Your task to perform on an android device: Is it going to rain tomorrow? Image 0: 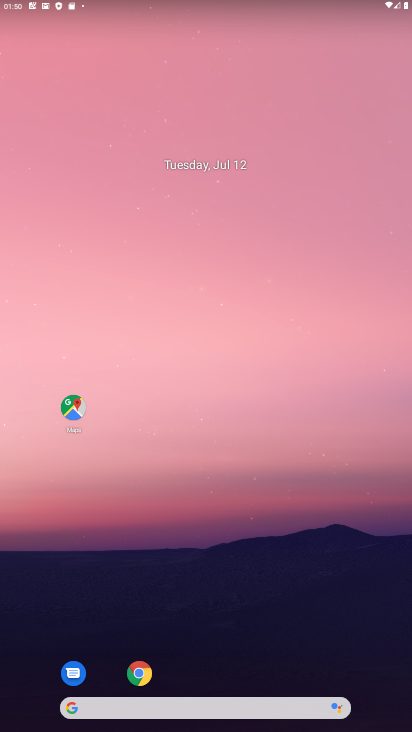
Step 0: click (245, 22)
Your task to perform on an android device: Is it going to rain tomorrow? Image 1: 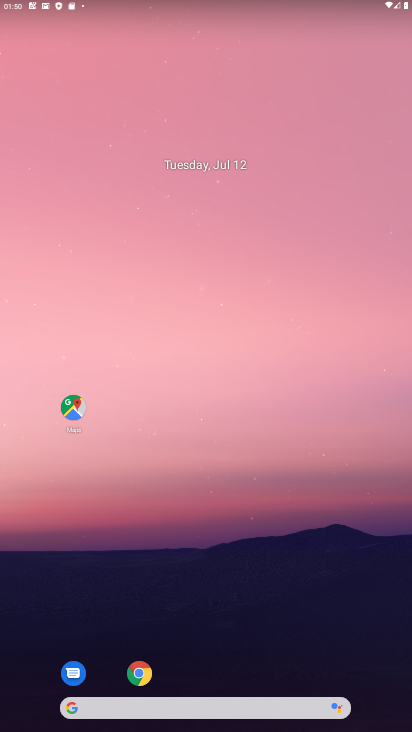
Step 1: click (159, 700)
Your task to perform on an android device: Is it going to rain tomorrow? Image 2: 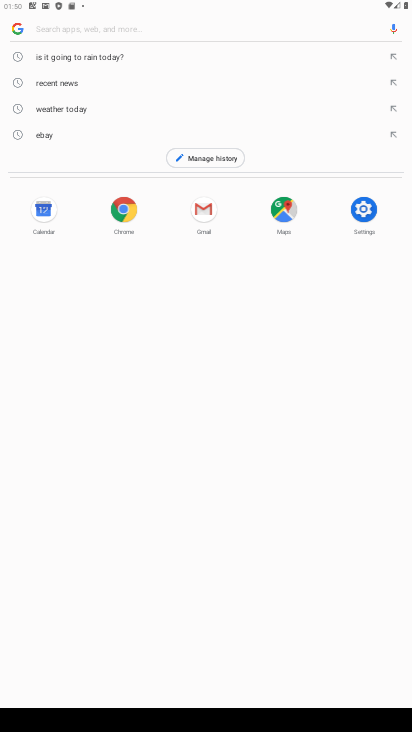
Step 2: type "Is it going to rain tomorrow?"
Your task to perform on an android device: Is it going to rain tomorrow? Image 3: 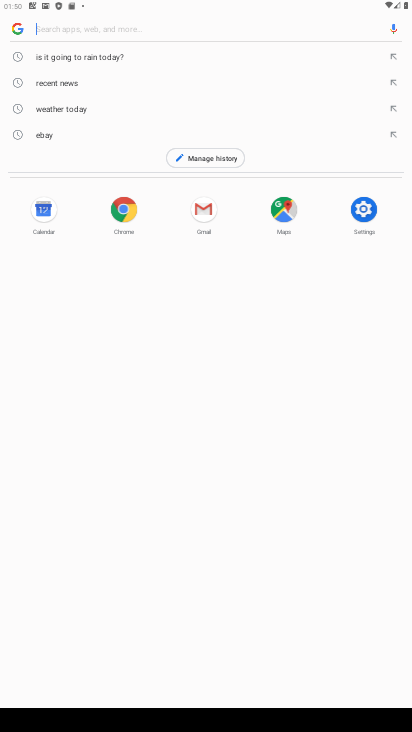
Step 3: click (72, 25)
Your task to perform on an android device: Is it going to rain tomorrow? Image 4: 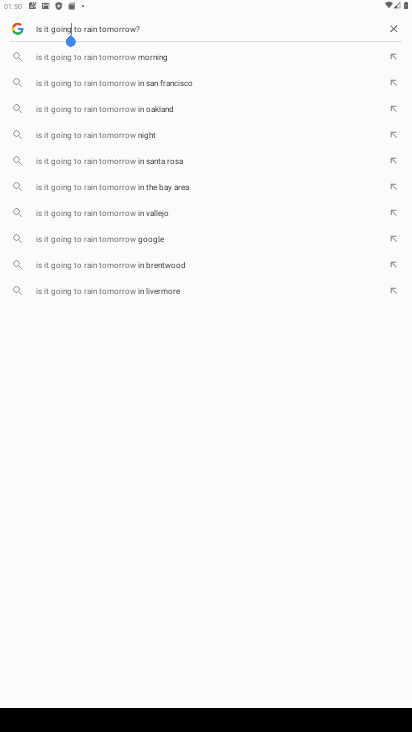
Step 4: press enter
Your task to perform on an android device: Is it going to rain tomorrow? Image 5: 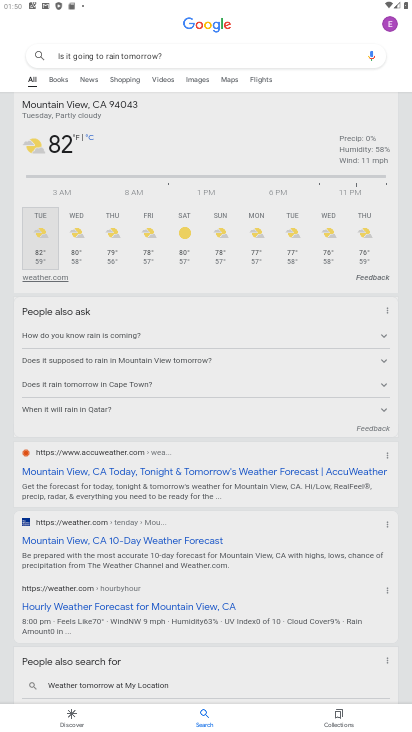
Step 5: task complete